Your task to perform on an android device: snooze an email in the gmail app Image 0: 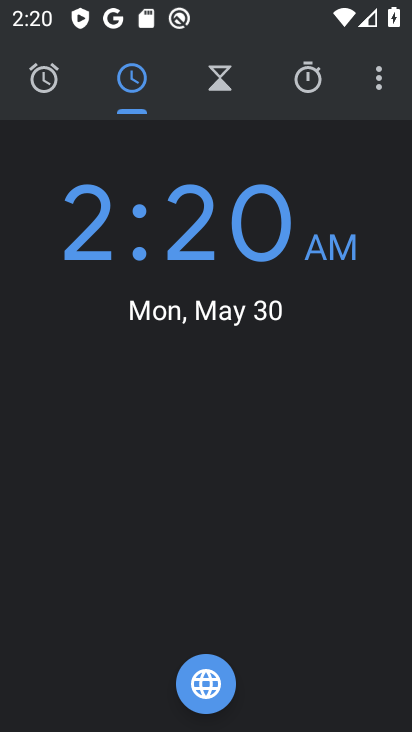
Step 0: press home button
Your task to perform on an android device: snooze an email in the gmail app Image 1: 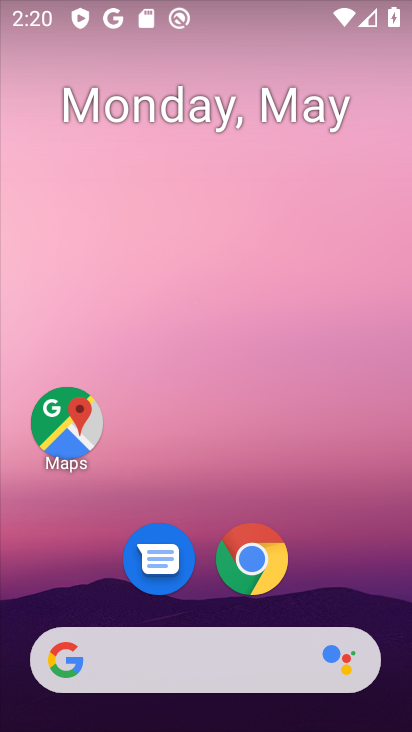
Step 1: drag from (330, 601) to (343, 14)
Your task to perform on an android device: snooze an email in the gmail app Image 2: 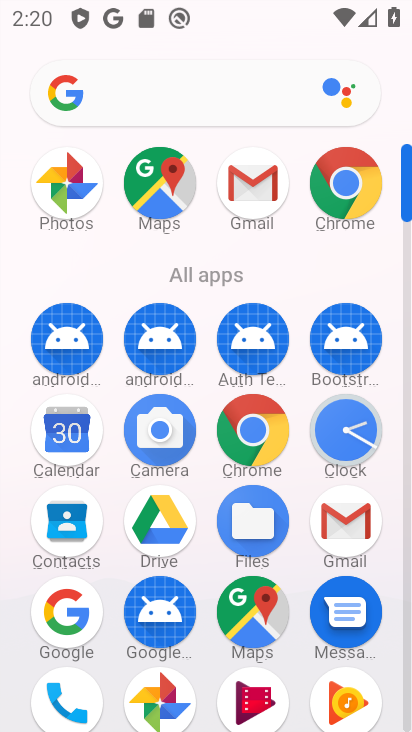
Step 2: click (248, 195)
Your task to perform on an android device: snooze an email in the gmail app Image 3: 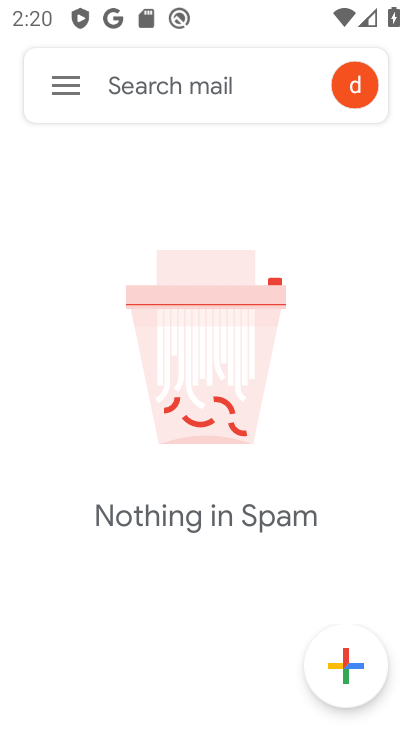
Step 3: click (61, 81)
Your task to perform on an android device: snooze an email in the gmail app Image 4: 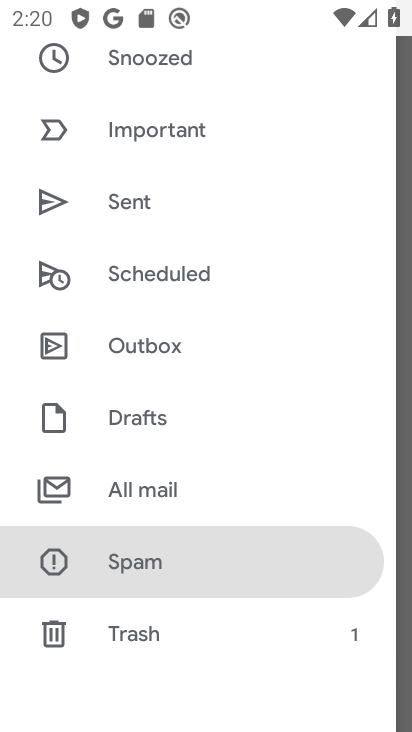
Step 4: click (162, 481)
Your task to perform on an android device: snooze an email in the gmail app Image 5: 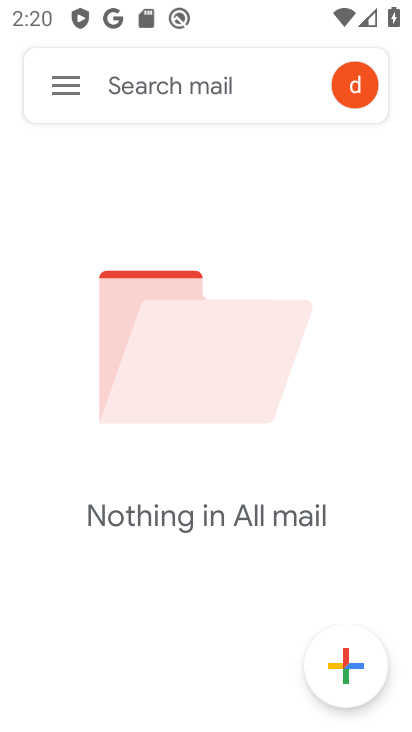
Step 5: task complete